Your task to perform on an android device: See recent photos Image 0: 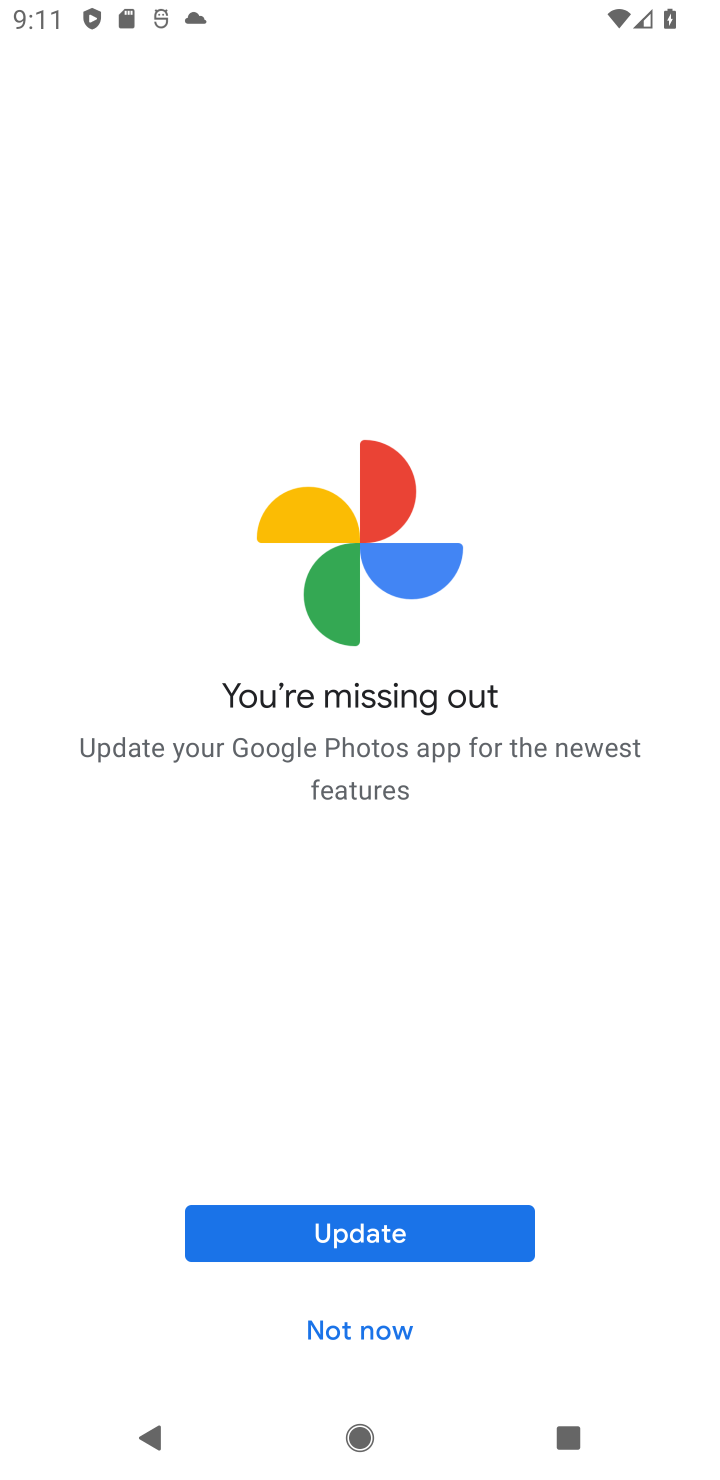
Step 0: click (383, 1338)
Your task to perform on an android device: See recent photos Image 1: 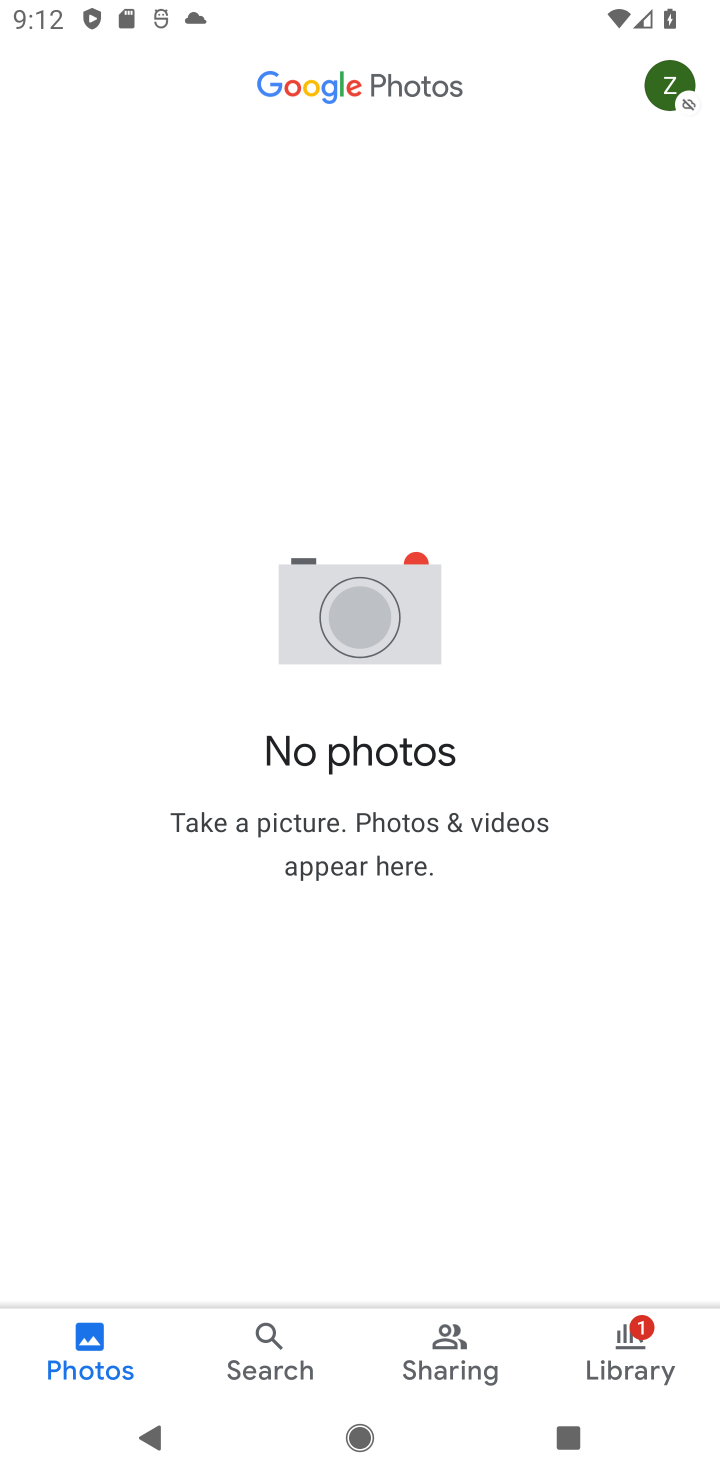
Step 1: task complete